Your task to perform on an android device: Open Yahoo.com Image 0: 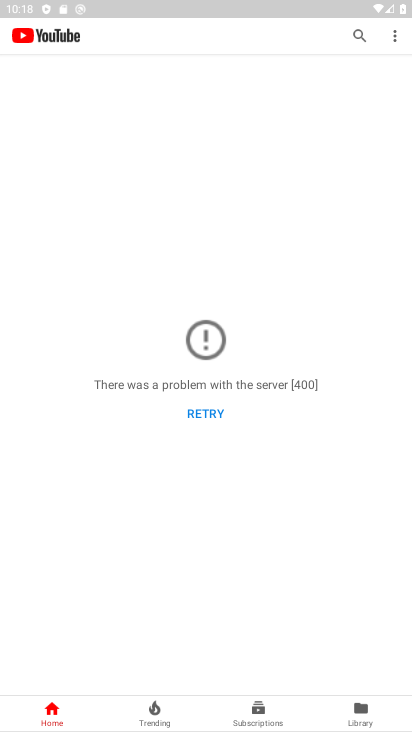
Step 0: press home button
Your task to perform on an android device: Open Yahoo.com Image 1: 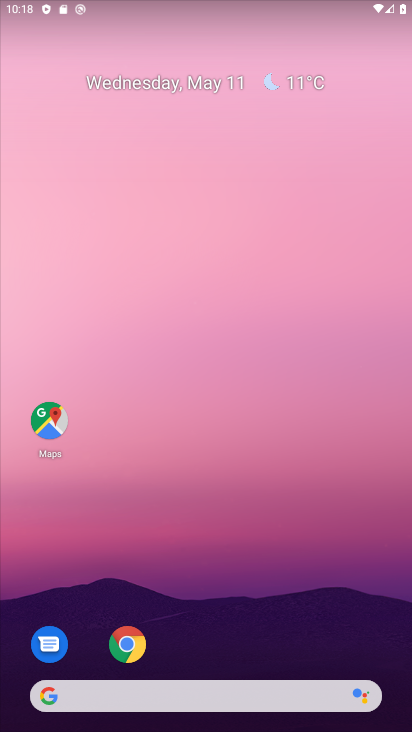
Step 1: click (134, 644)
Your task to perform on an android device: Open Yahoo.com Image 2: 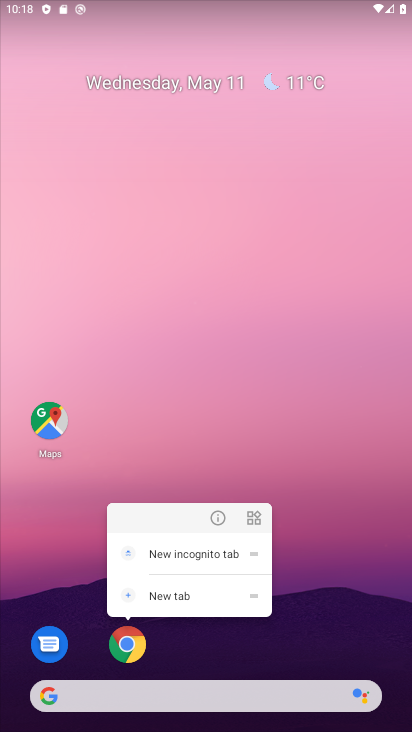
Step 2: click (136, 649)
Your task to perform on an android device: Open Yahoo.com Image 3: 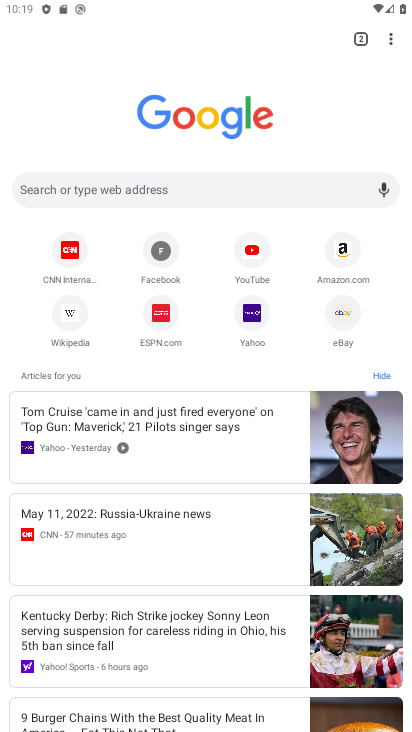
Step 3: click (250, 319)
Your task to perform on an android device: Open Yahoo.com Image 4: 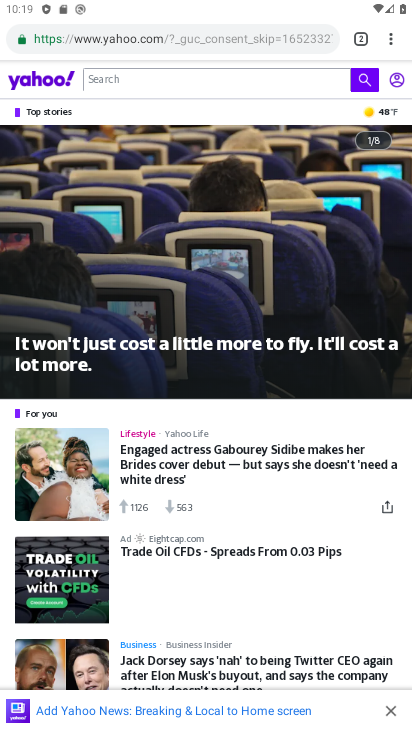
Step 4: task complete